Your task to perform on an android device: see creations saved in the google photos Image 0: 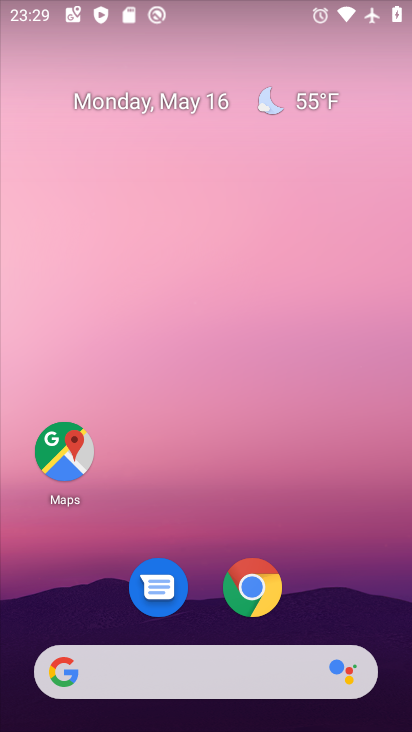
Step 0: drag from (331, 541) to (229, 32)
Your task to perform on an android device: see creations saved in the google photos Image 1: 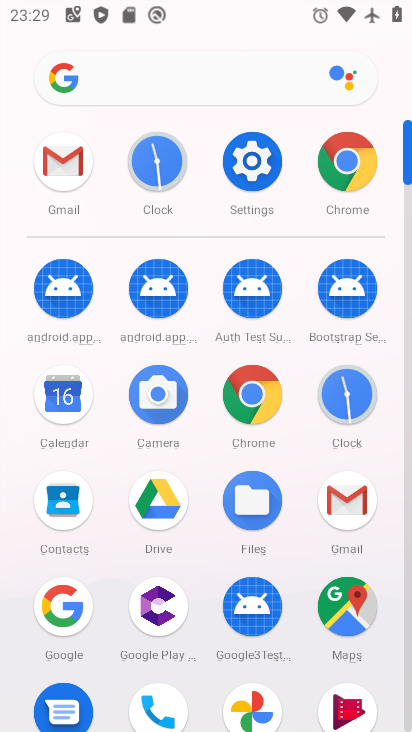
Step 1: drag from (14, 568) to (18, 172)
Your task to perform on an android device: see creations saved in the google photos Image 2: 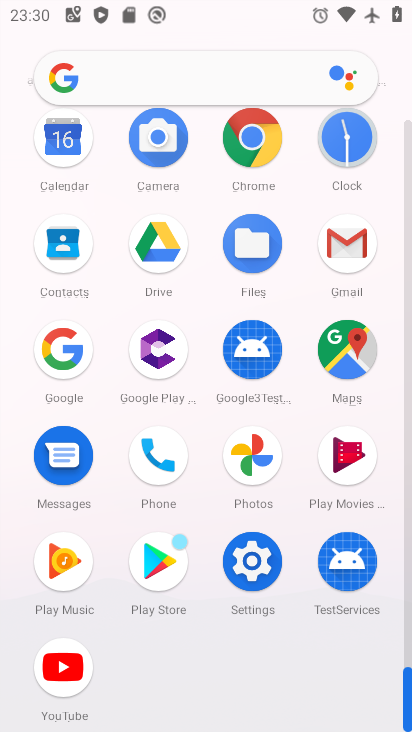
Step 2: click (251, 451)
Your task to perform on an android device: see creations saved in the google photos Image 3: 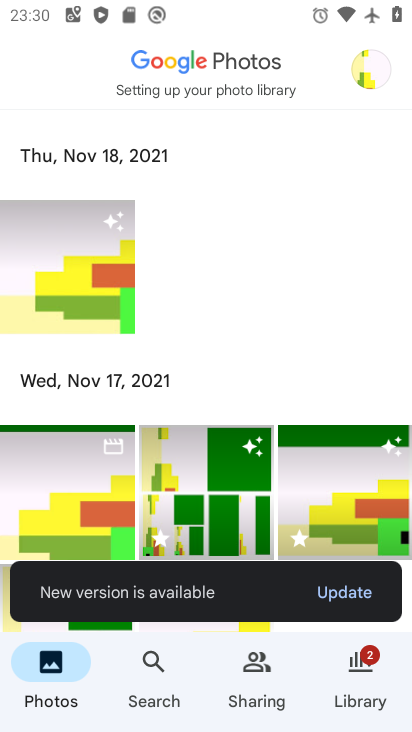
Step 3: task complete